Your task to perform on an android device: search for starred emails in the gmail app Image 0: 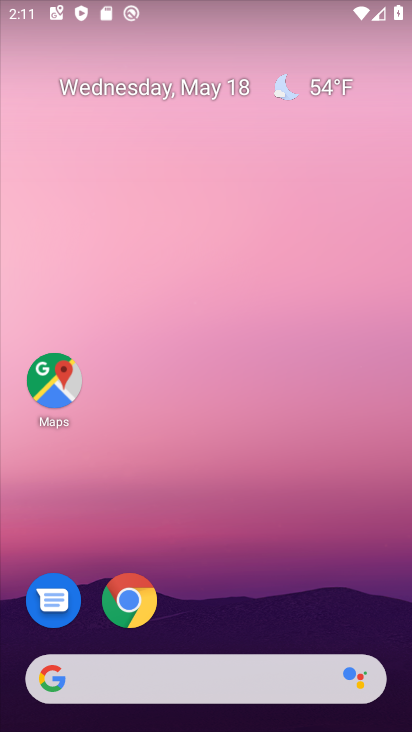
Step 0: drag from (228, 625) to (238, 166)
Your task to perform on an android device: search for starred emails in the gmail app Image 1: 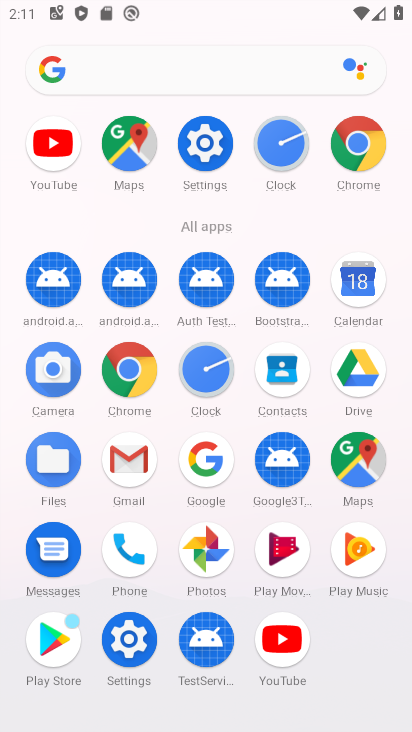
Step 1: click (128, 449)
Your task to perform on an android device: search for starred emails in the gmail app Image 2: 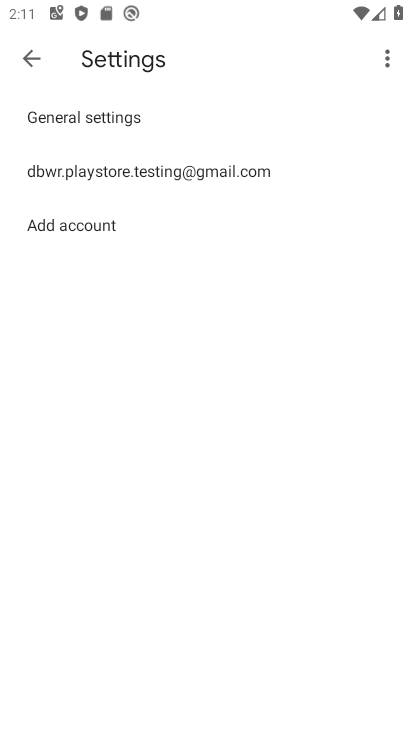
Step 2: click (45, 73)
Your task to perform on an android device: search for starred emails in the gmail app Image 3: 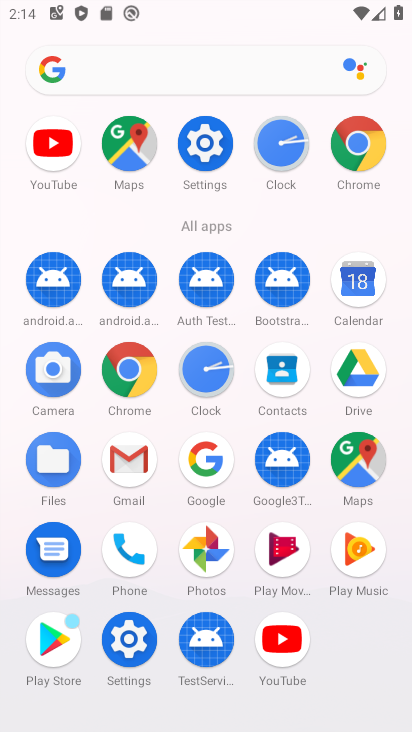
Step 3: click (127, 458)
Your task to perform on an android device: search for starred emails in the gmail app Image 4: 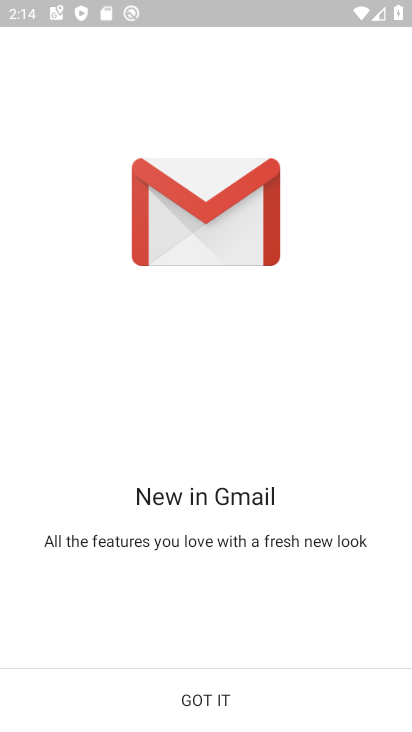
Step 4: click (284, 691)
Your task to perform on an android device: search for starred emails in the gmail app Image 5: 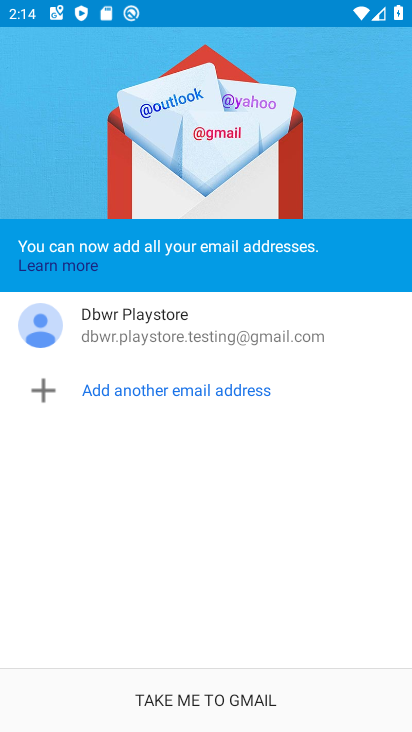
Step 5: click (284, 691)
Your task to perform on an android device: search for starred emails in the gmail app Image 6: 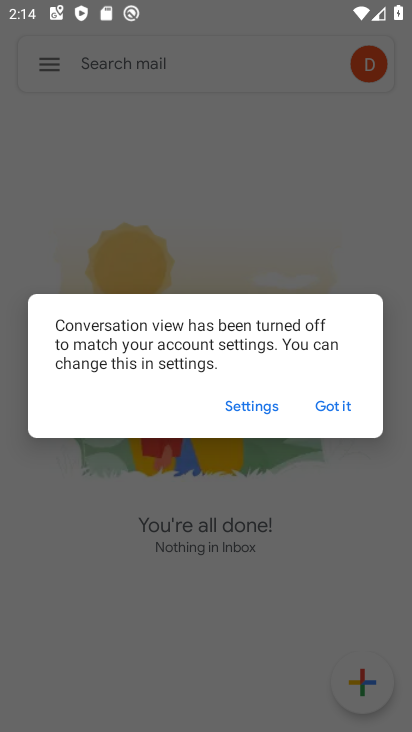
Step 6: click (333, 409)
Your task to perform on an android device: search for starred emails in the gmail app Image 7: 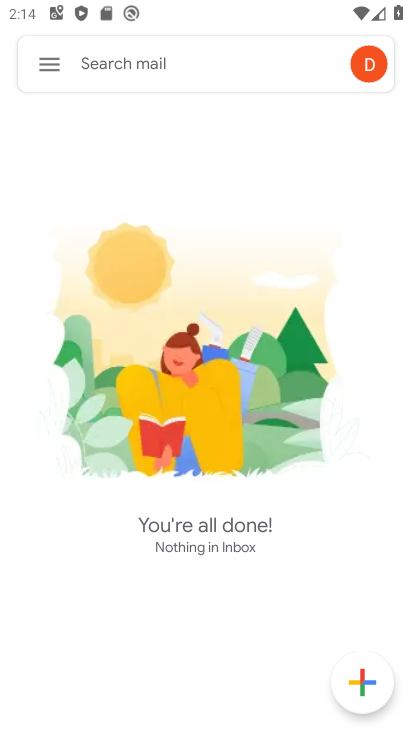
Step 7: click (54, 65)
Your task to perform on an android device: search for starred emails in the gmail app Image 8: 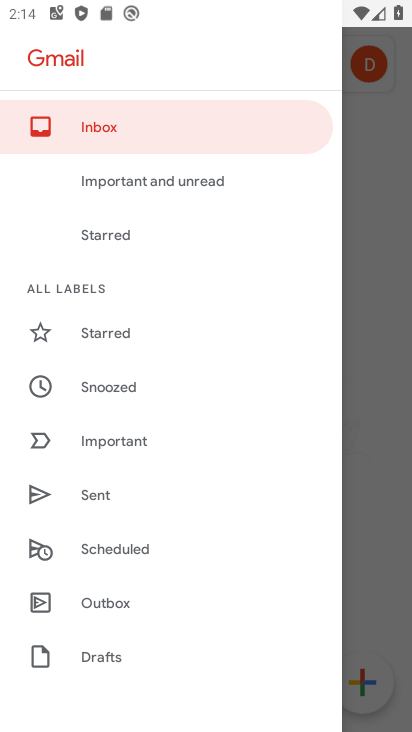
Step 8: click (112, 331)
Your task to perform on an android device: search for starred emails in the gmail app Image 9: 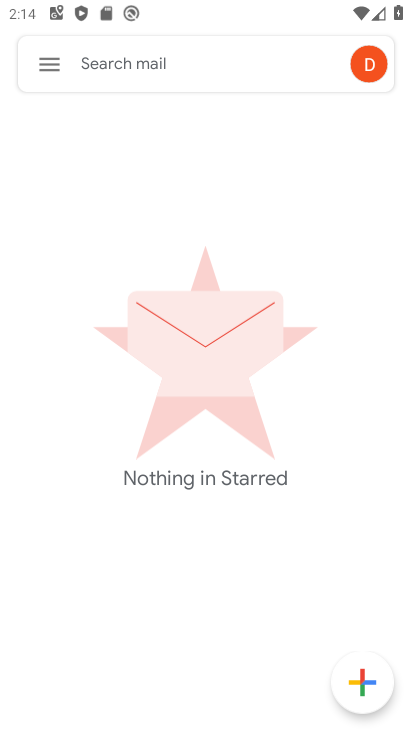
Step 9: task complete